Your task to perform on an android device: remove spam from my inbox in the gmail app Image 0: 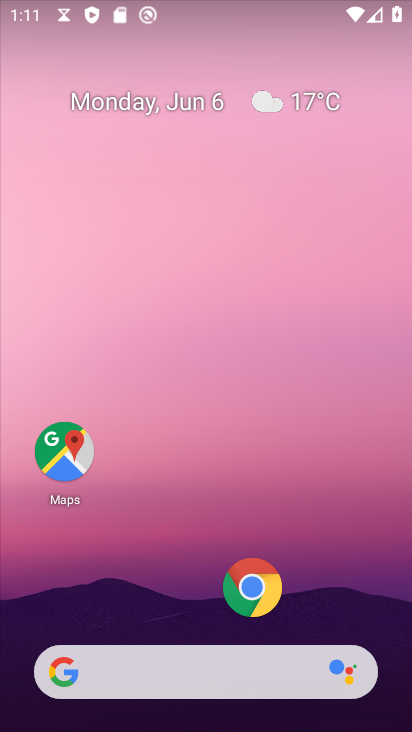
Step 0: drag from (188, 571) to (198, 255)
Your task to perform on an android device: remove spam from my inbox in the gmail app Image 1: 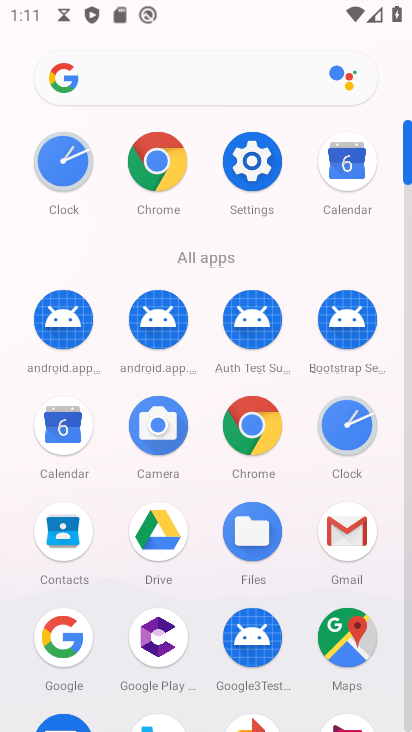
Step 1: click (346, 539)
Your task to perform on an android device: remove spam from my inbox in the gmail app Image 2: 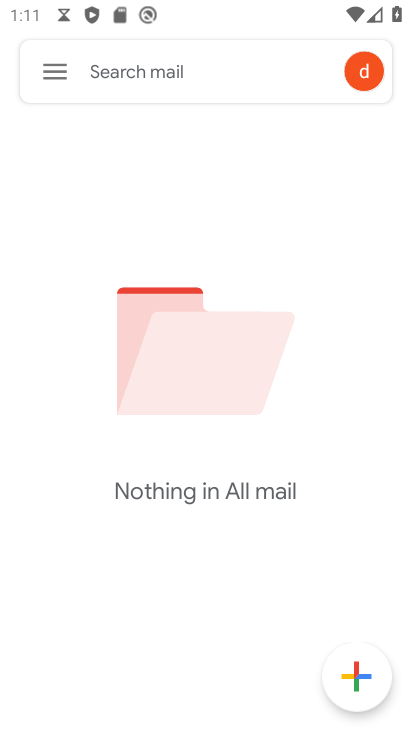
Step 2: click (46, 63)
Your task to perform on an android device: remove spam from my inbox in the gmail app Image 3: 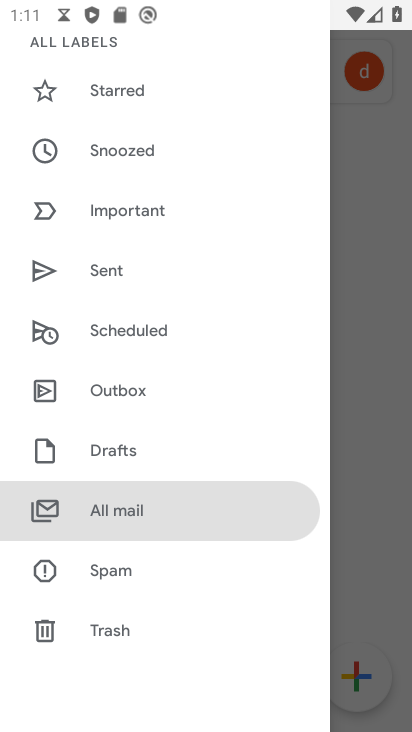
Step 3: click (130, 582)
Your task to perform on an android device: remove spam from my inbox in the gmail app Image 4: 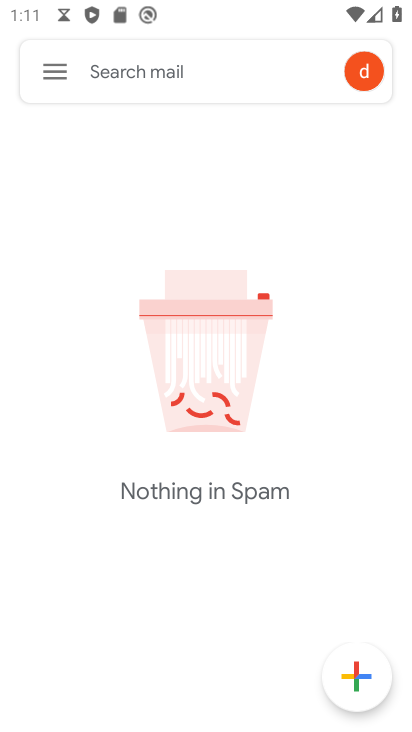
Step 4: task complete